Your task to perform on an android device: Install the Wikipedia app Image 0: 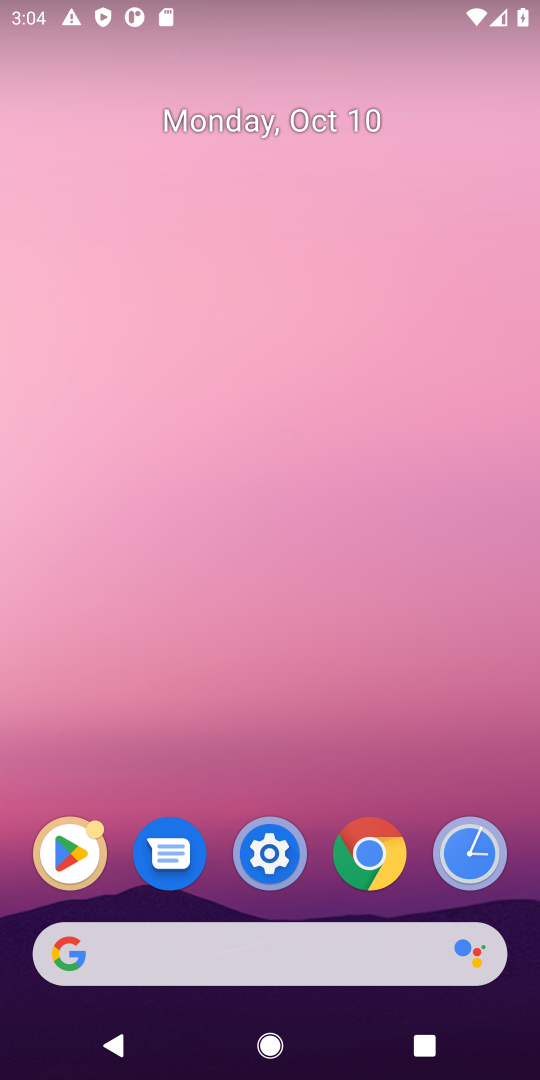
Step 0: click (64, 859)
Your task to perform on an android device: Install the Wikipedia app Image 1: 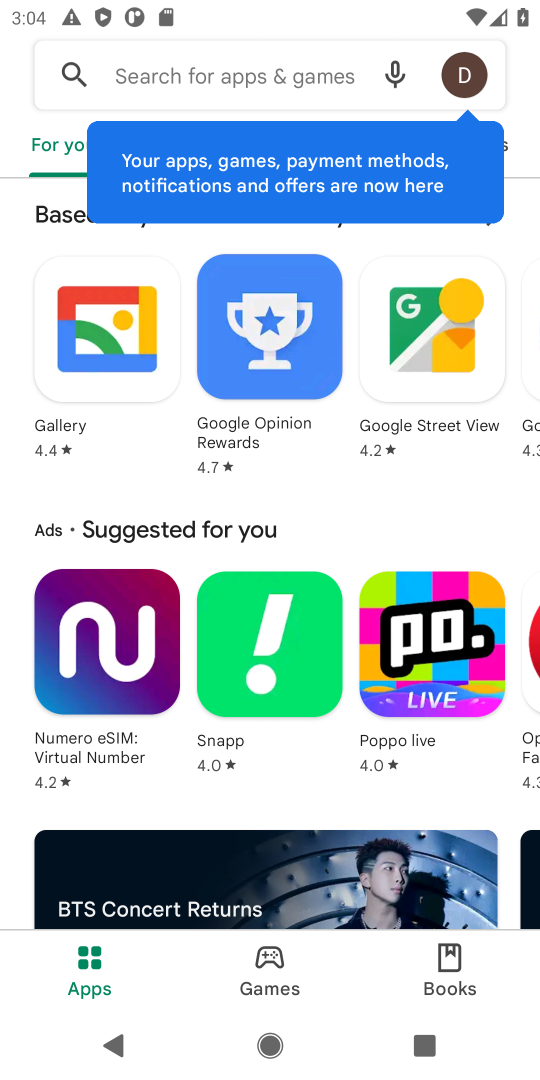
Step 1: click (343, 95)
Your task to perform on an android device: Install the Wikipedia app Image 2: 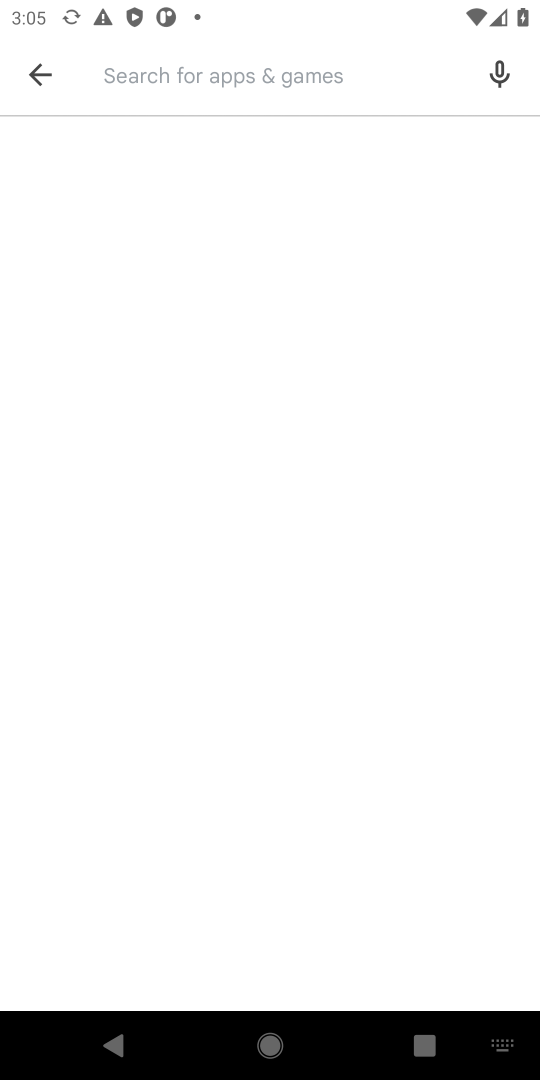
Step 2: type "wikipedia"
Your task to perform on an android device: Install the Wikipedia app Image 3: 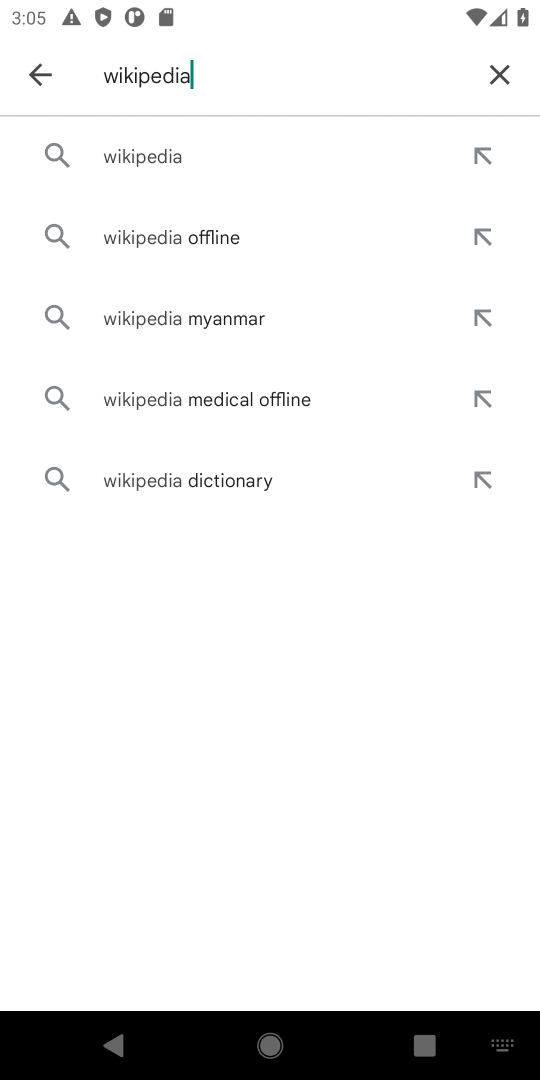
Step 3: click (164, 155)
Your task to perform on an android device: Install the Wikipedia app Image 4: 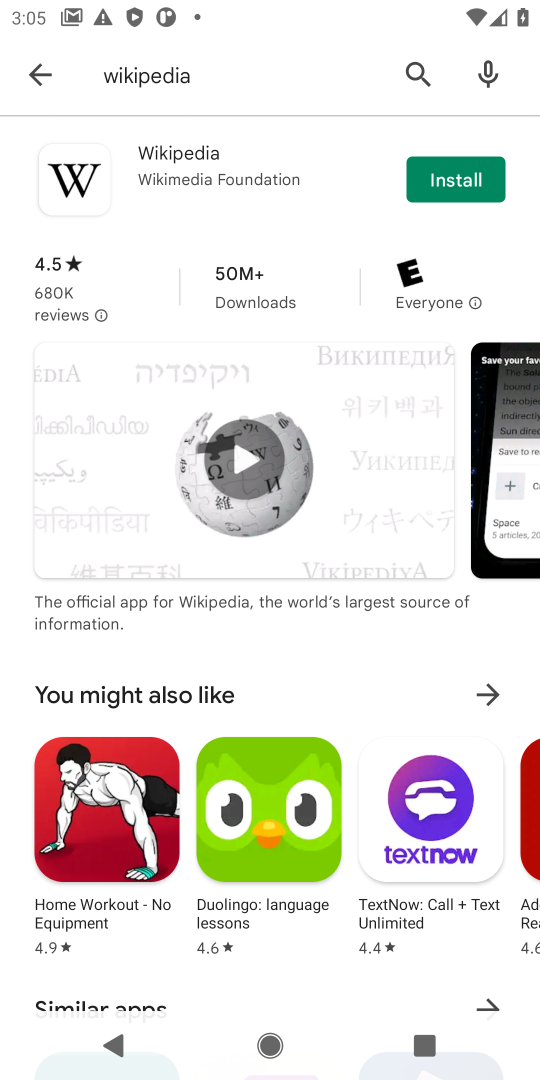
Step 4: click (449, 178)
Your task to perform on an android device: Install the Wikipedia app Image 5: 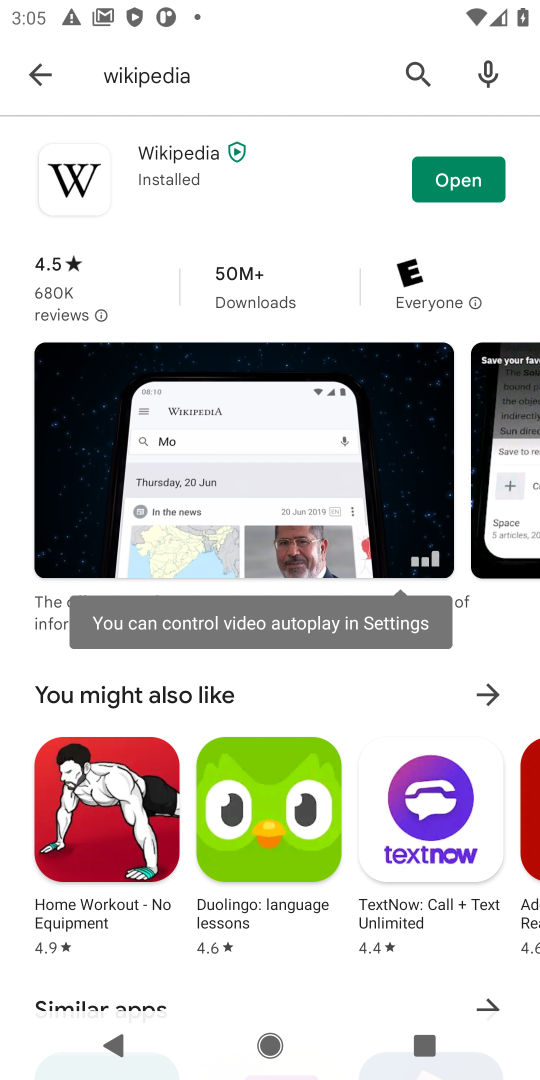
Step 5: task complete